Your task to perform on an android device: Search for duracell triple a on ebay.com, select the first entry, and add it to the cart. Image 0: 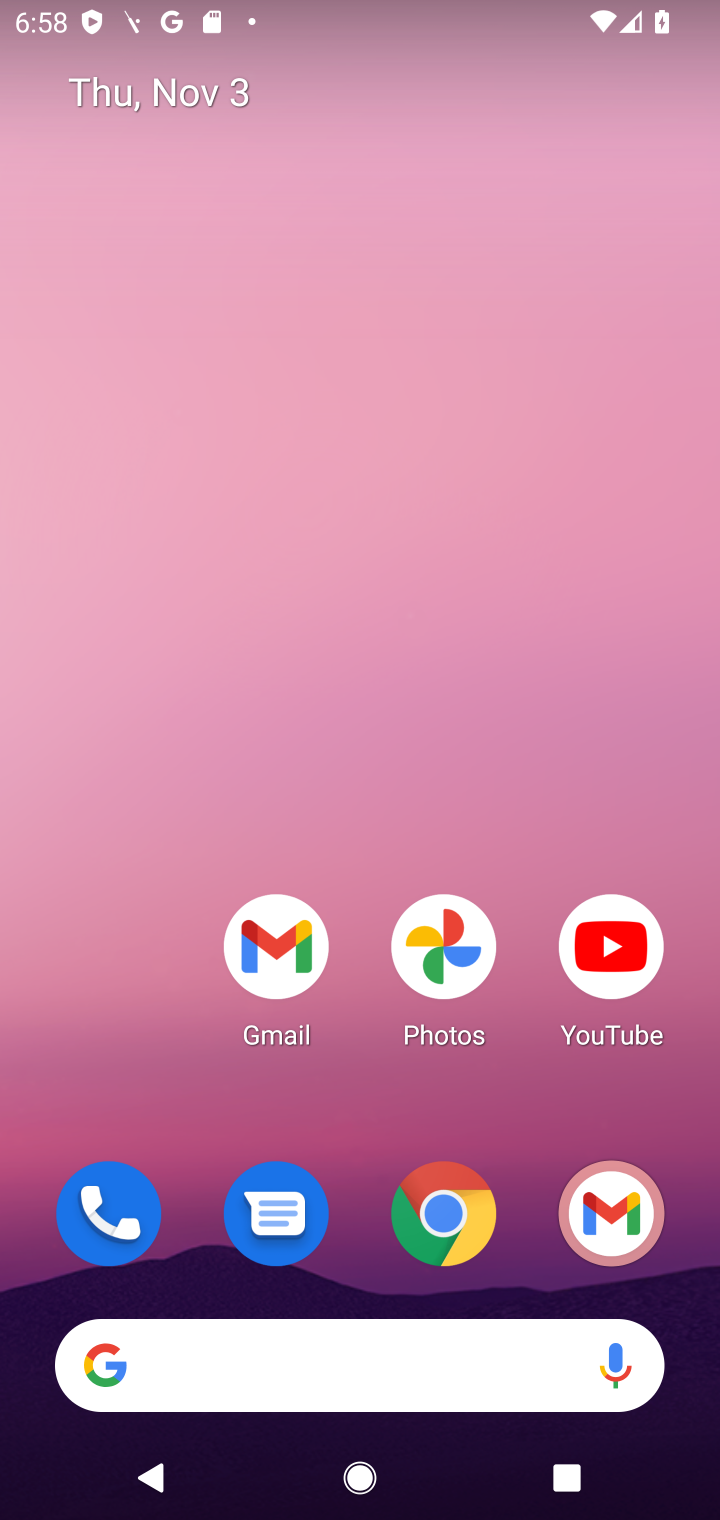
Step 0: click (434, 1220)
Your task to perform on an android device: Search for duracell triple a on ebay.com, select the first entry, and add it to the cart. Image 1: 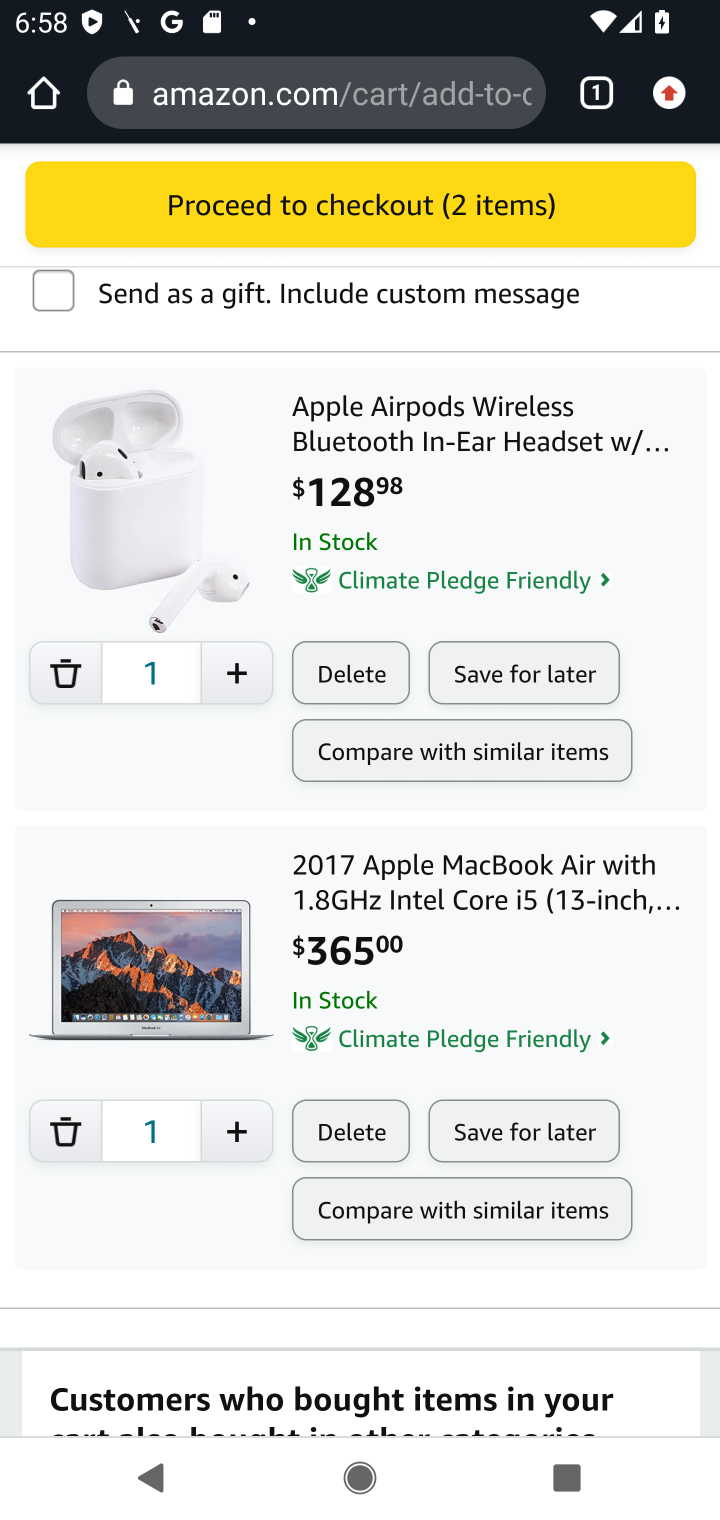
Step 1: click (359, 113)
Your task to perform on an android device: Search for duracell triple a on ebay.com, select the first entry, and add it to the cart. Image 2: 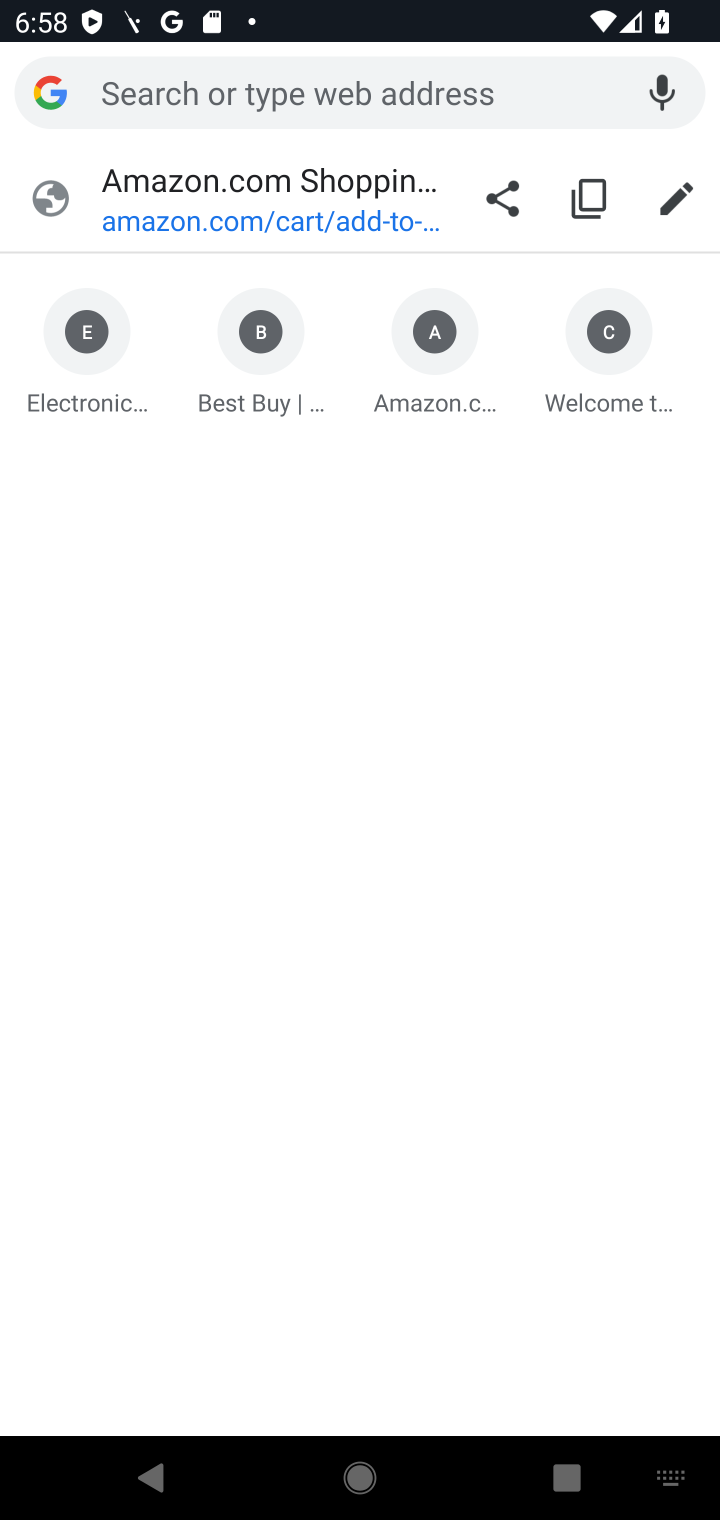
Step 2: type "ebay.com"
Your task to perform on an android device: Search for duracell triple a on ebay.com, select the first entry, and add it to the cart. Image 3: 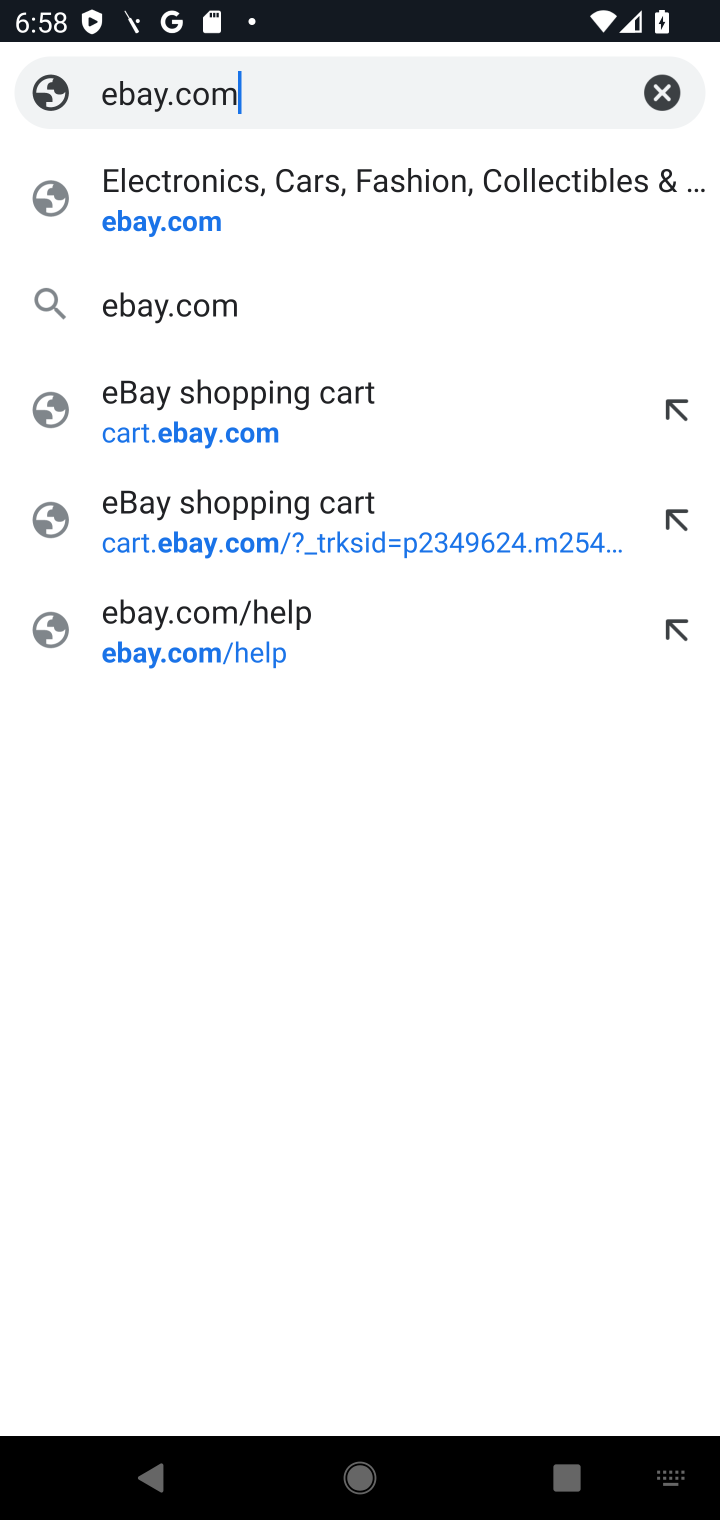
Step 3: click (200, 219)
Your task to perform on an android device: Search for duracell triple a on ebay.com, select the first entry, and add it to the cart. Image 4: 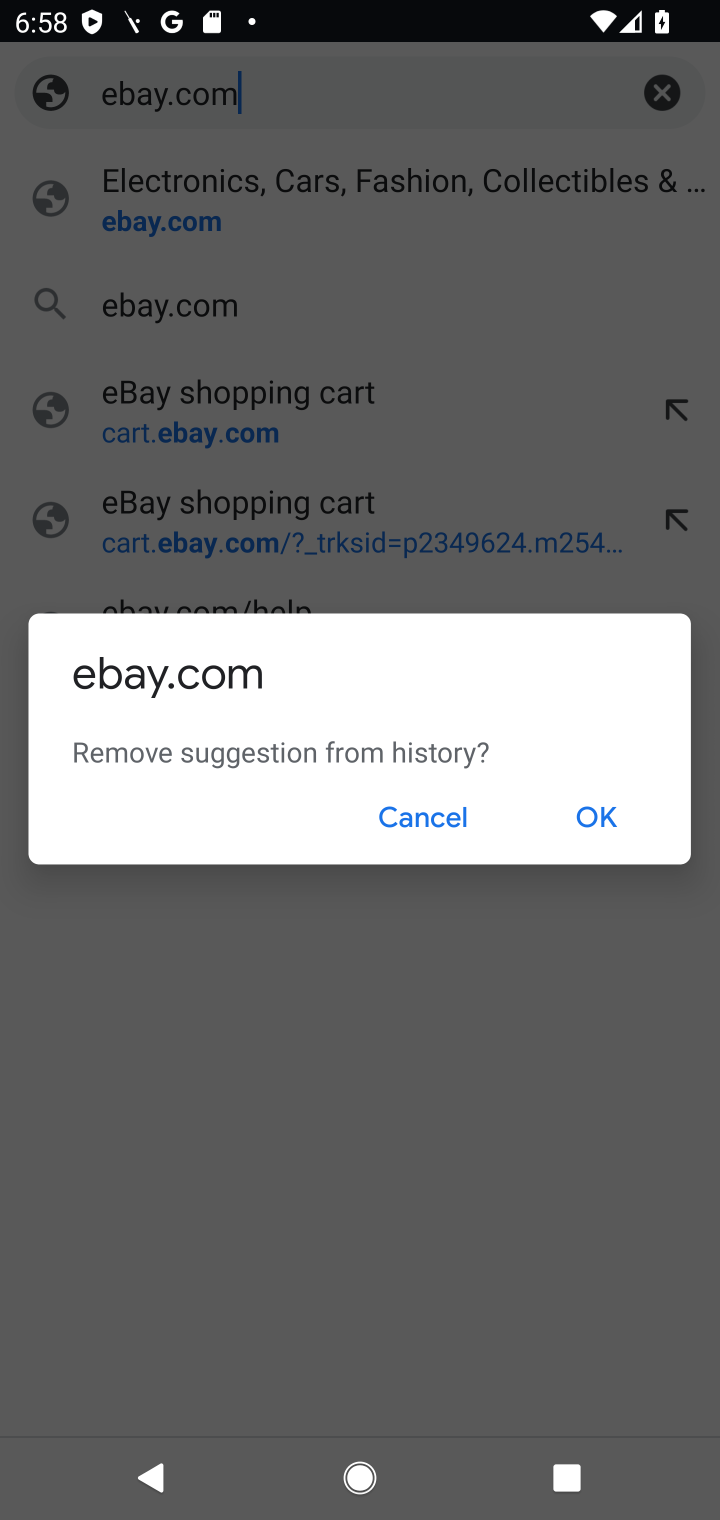
Step 4: click (431, 815)
Your task to perform on an android device: Search for duracell triple a on ebay.com, select the first entry, and add it to the cart. Image 5: 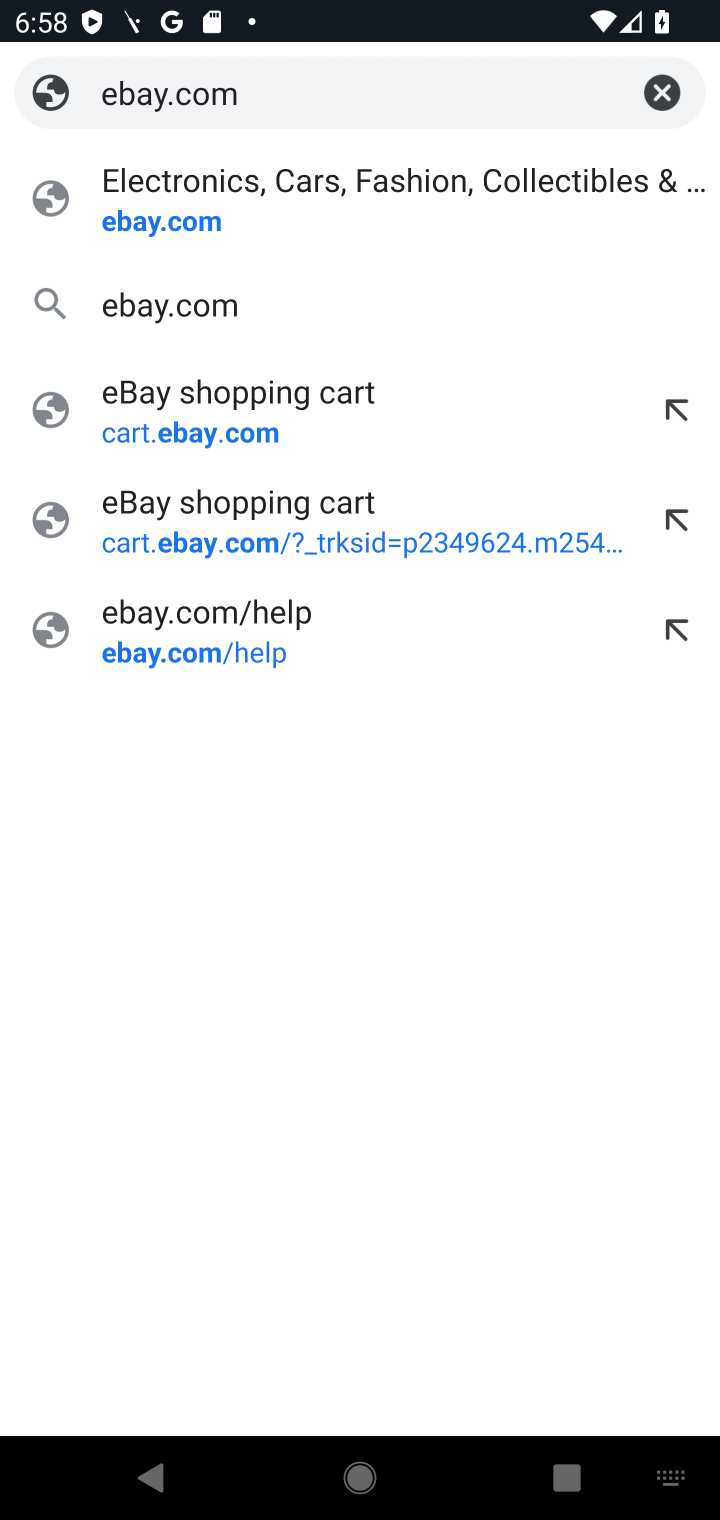
Step 5: click (148, 228)
Your task to perform on an android device: Search for duracell triple a on ebay.com, select the first entry, and add it to the cart. Image 6: 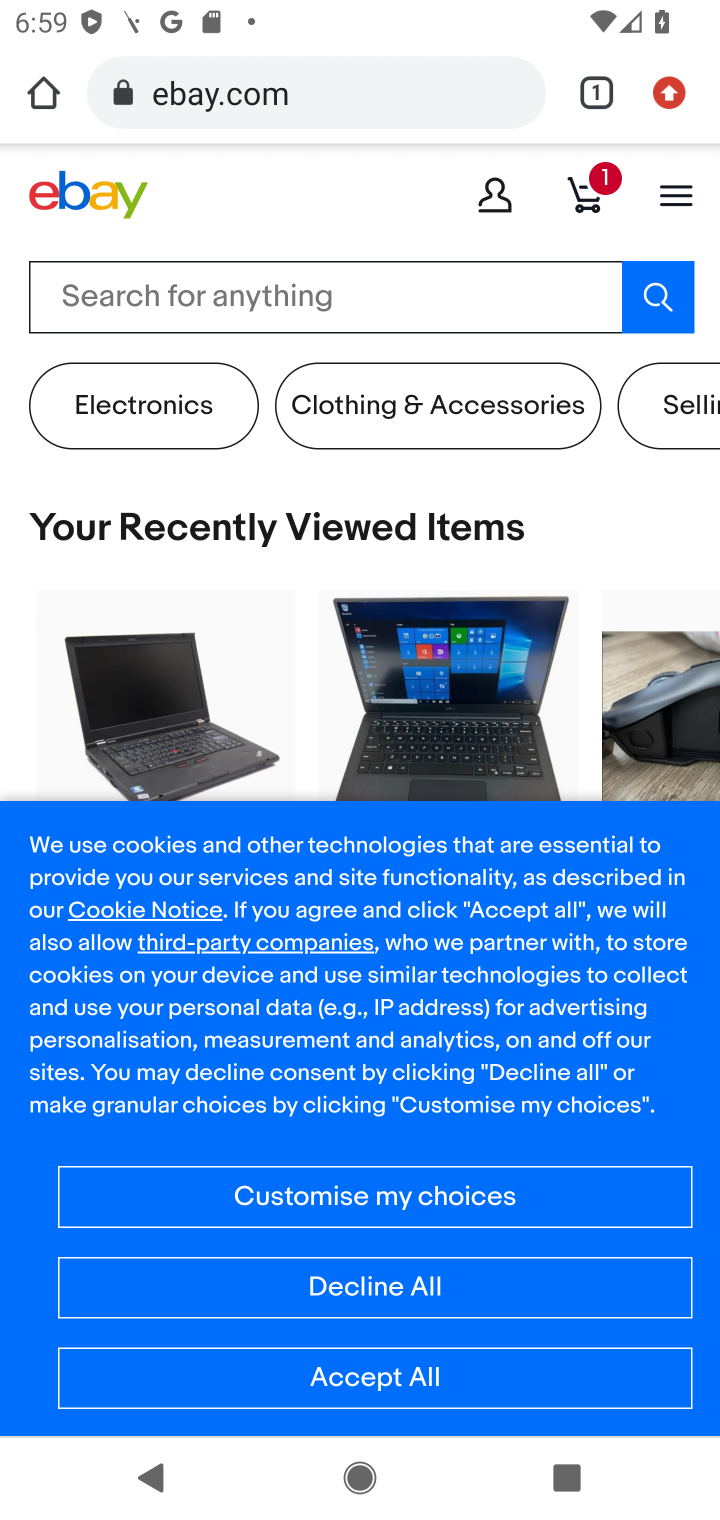
Step 6: click (212, 294)
Your task to perform on an android device: Search for duracell triple a on ebay.com, select the first entry, and add it to the cart. Image 7: 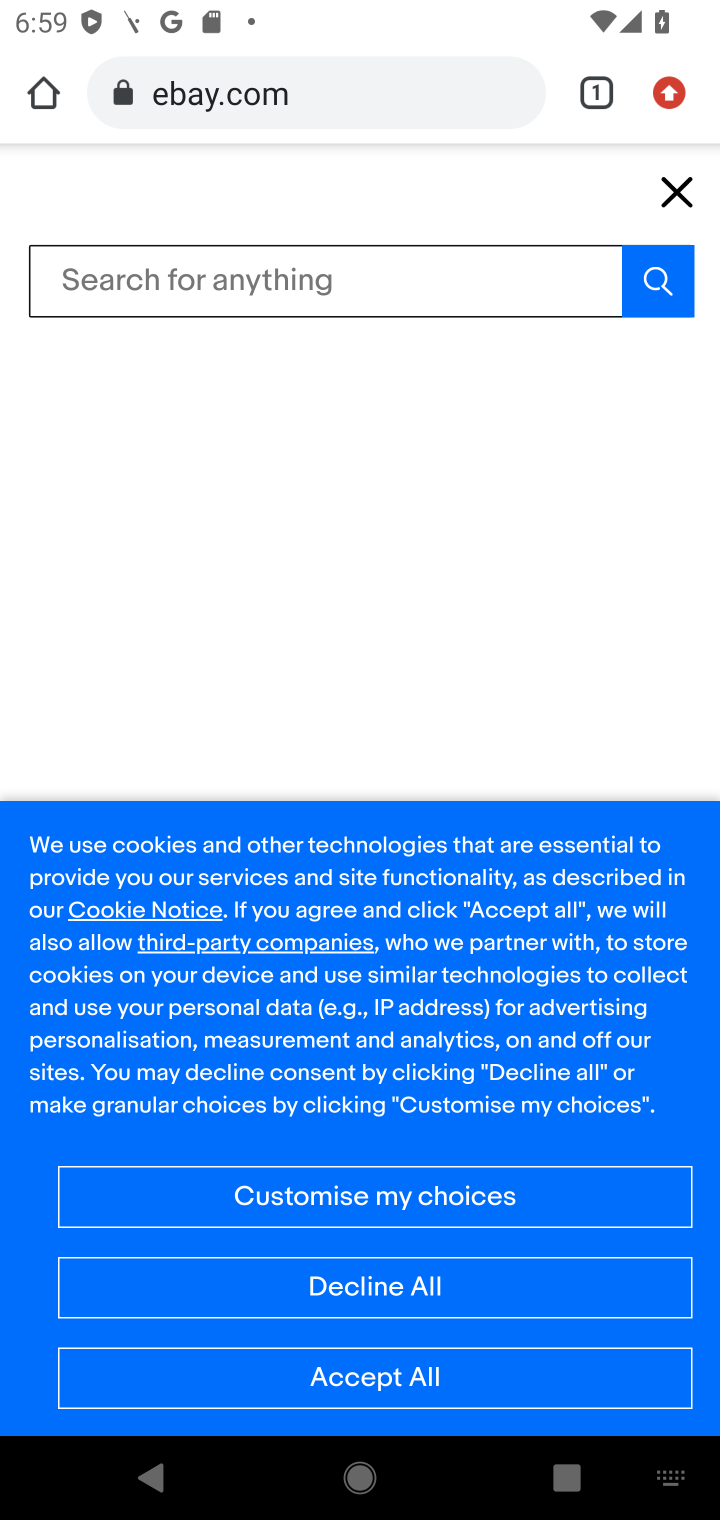
Step 7: type "duracell triple a"
Your task to perform on an android device: Search for duracell triple a on ebay.com, select the first entry, and add it to the cart. Image 8: 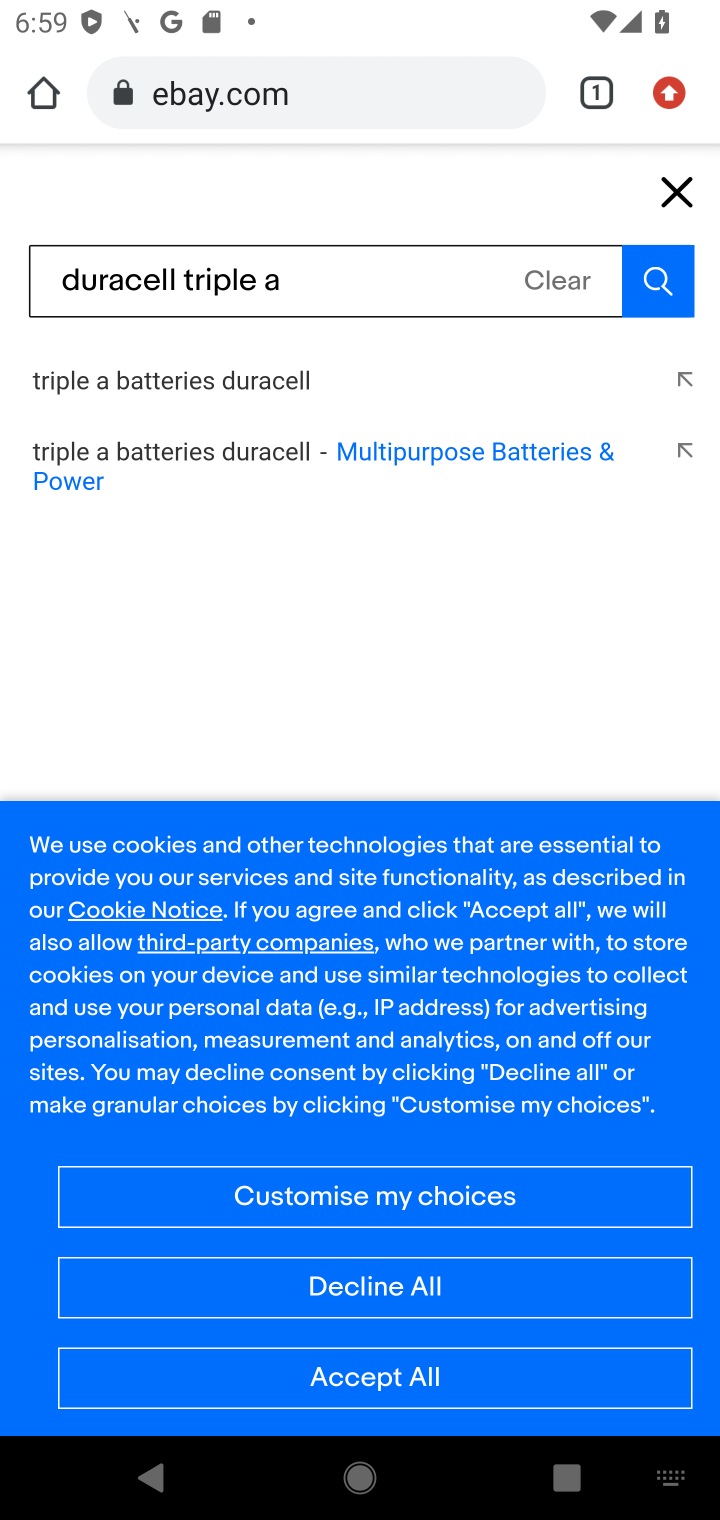
Step 8: click (668, 301)
Your task to perform on an android device: Search for duracell triple a on ebay.com, select the first entry, and add it to the cart. Image 9: 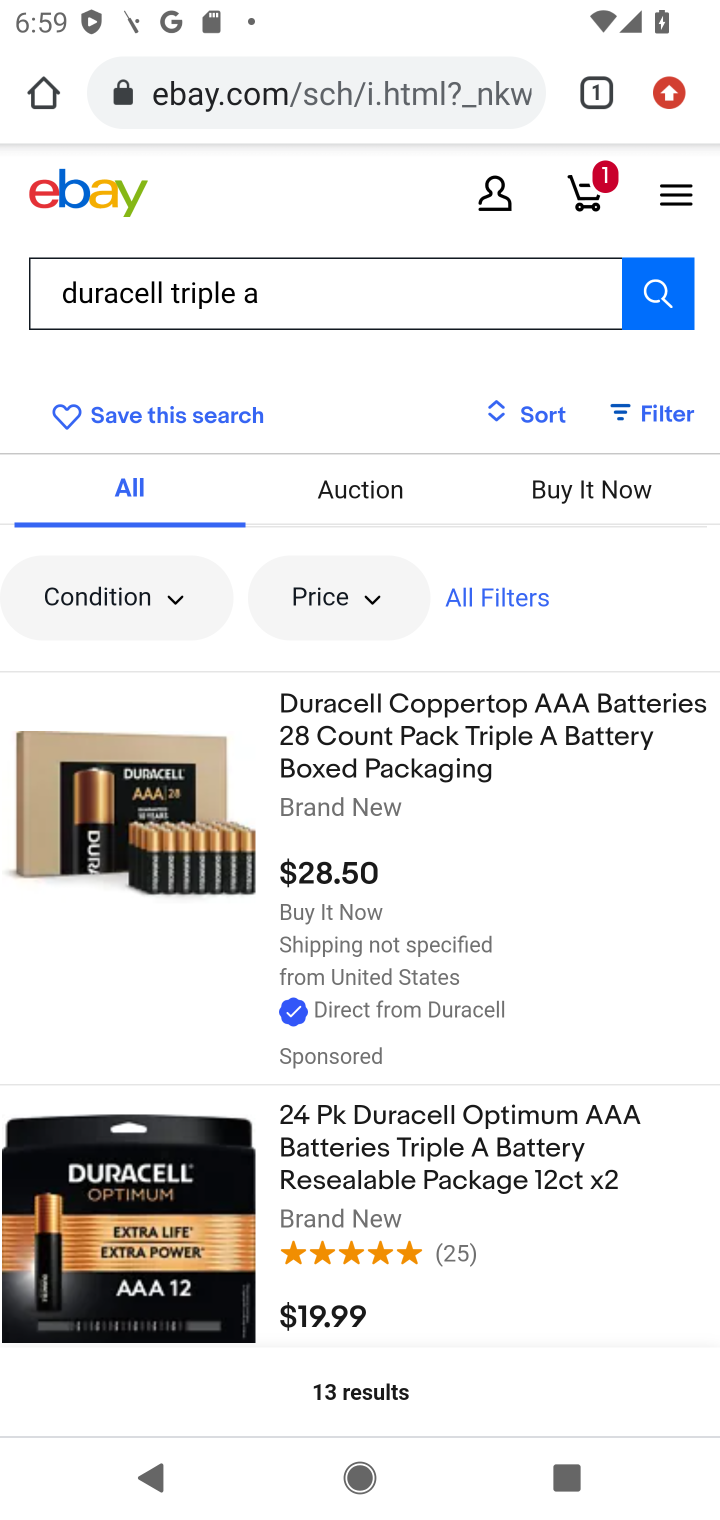
Step 9: click (295, 781)
Your task to perform on an android device: Search for duracell triple a on ebay.com, select the first entry, and add it to the cart. Image 10: 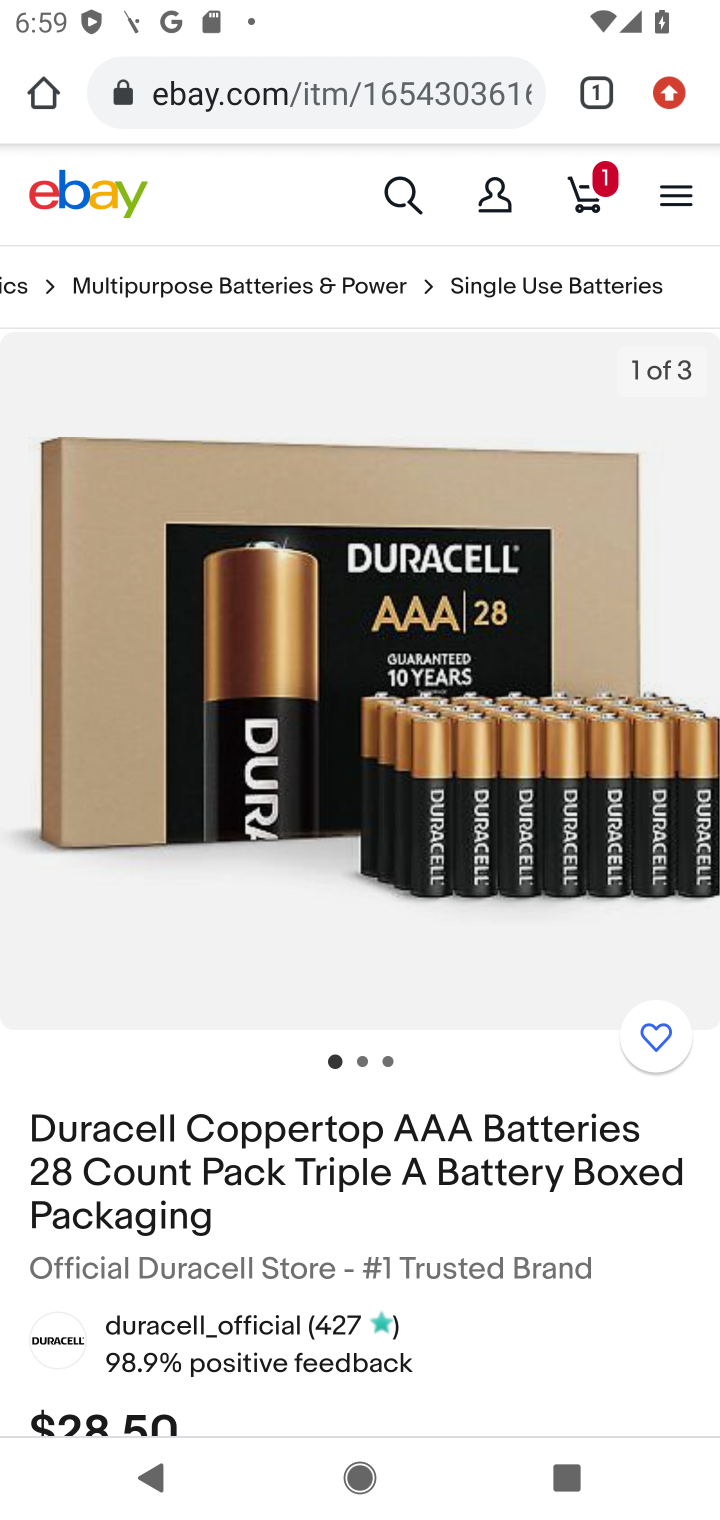
Step 10: drag from (359, 1158) to (374, 469)
Your task to perform on an android device: Search for duracell triple a on ebay.com, select the first entry, and add it to the cart. Image 11: 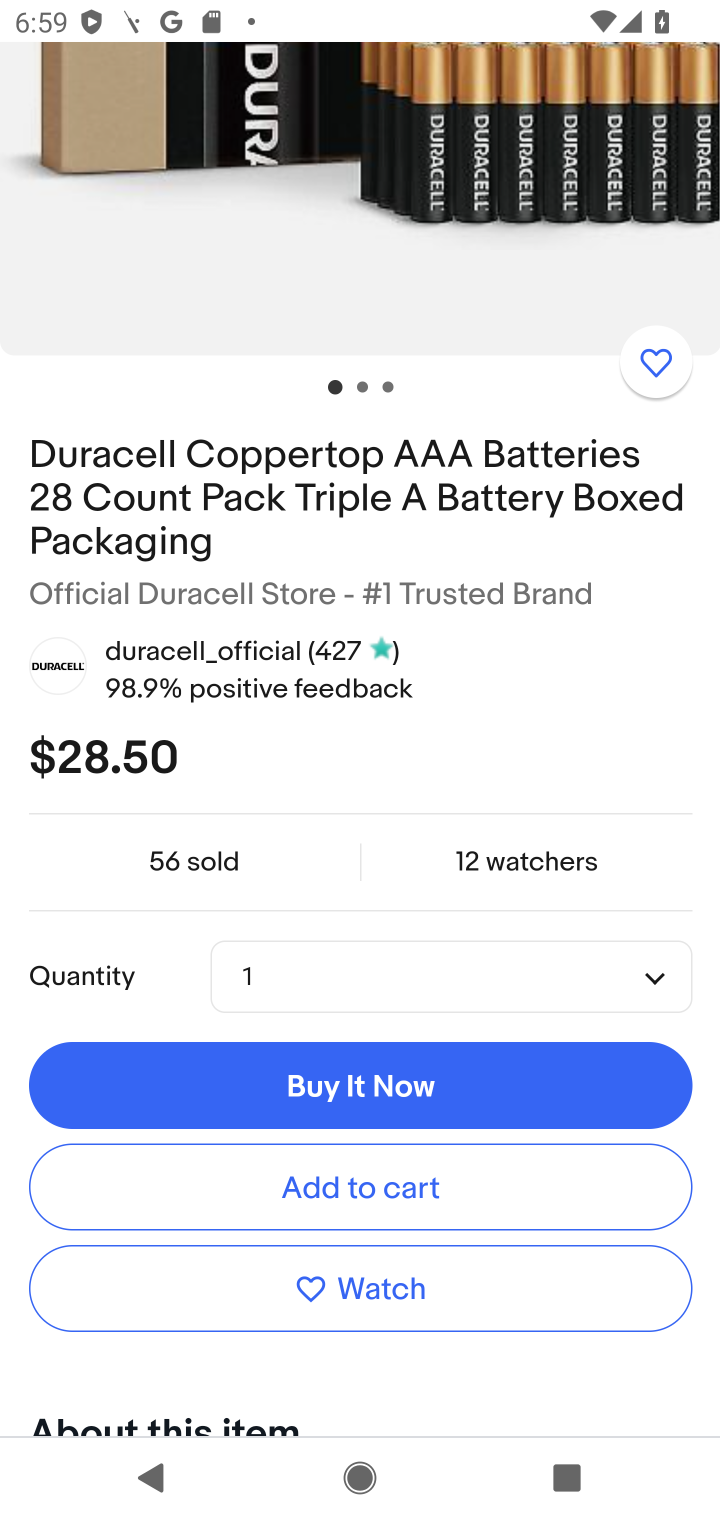
Step 11: click (386, 1180)
Your task to perform on an android device: Search for duracell triple a on ebay.com, select the first entry, and add it to the cart. Image 12: 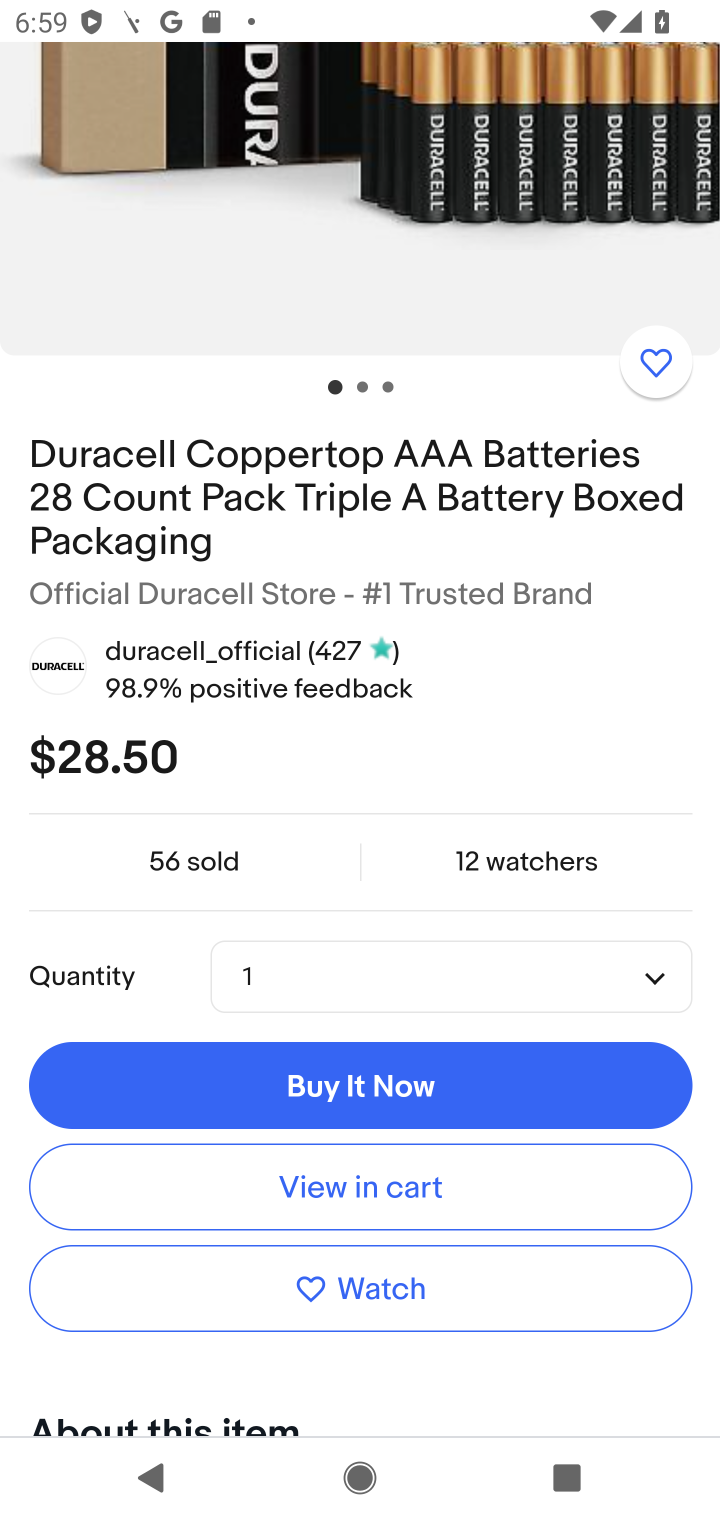
Step 12: task complete